Your task to perform on an android device: Open Chrome and go to settings Image 0: 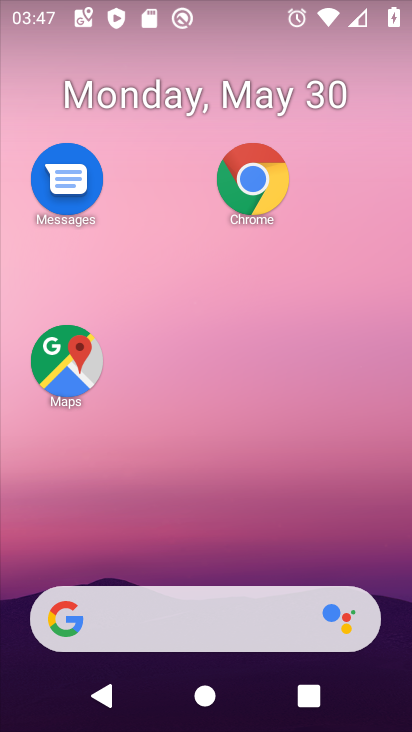
Step 0: click (250, 192)
Your task to perform on an android device: Open Chrome and go to settings Image 1: 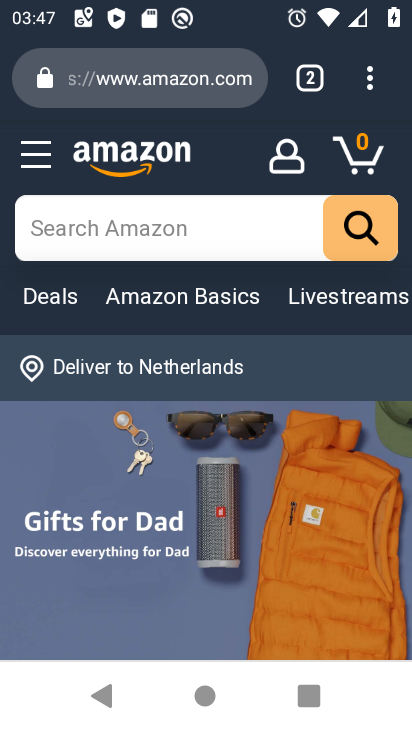
Step 1: click (375, 82)
Your task to perform on an android device: Open Chrome and go to settings Image 2: 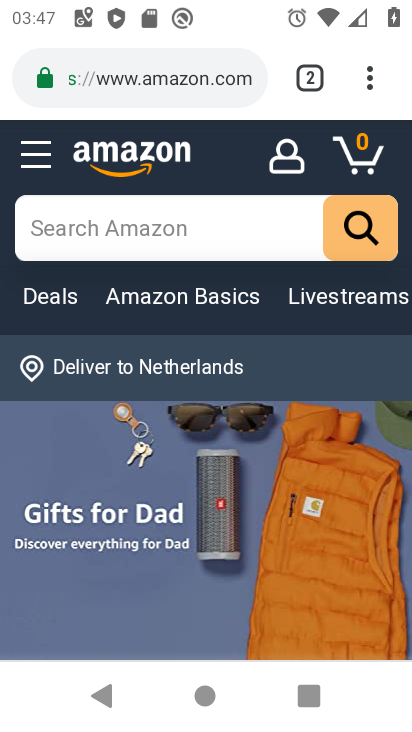
Step 2: click (370, 86)
Your task to perform on an android device: Open Chrome and go to settings Image 3: 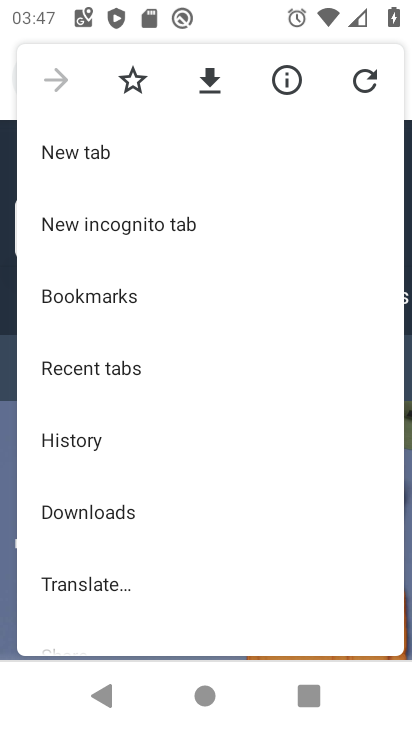
Step 3: drag from (118, 577) to (260, 180)
Your task to perform on an android device: Open Chrome and go to settings Image 4: 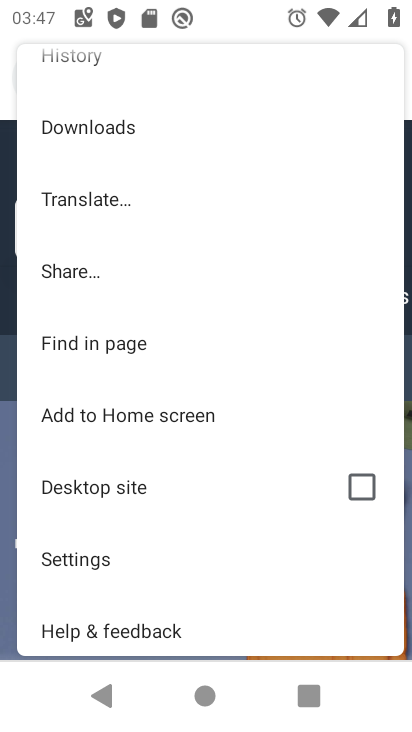
Step 4: click (108, 554)
Your task to perform on an android device: Open Chrome and go to settings Image 5: 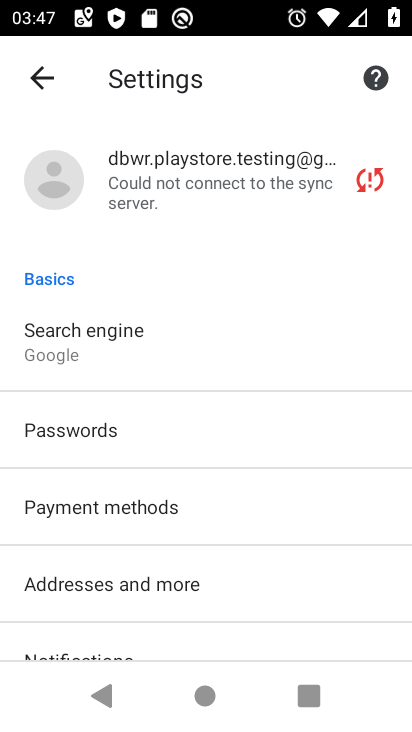
Step 5: task complete